Your task to perform on an android device: all mails in gmail Image 0: 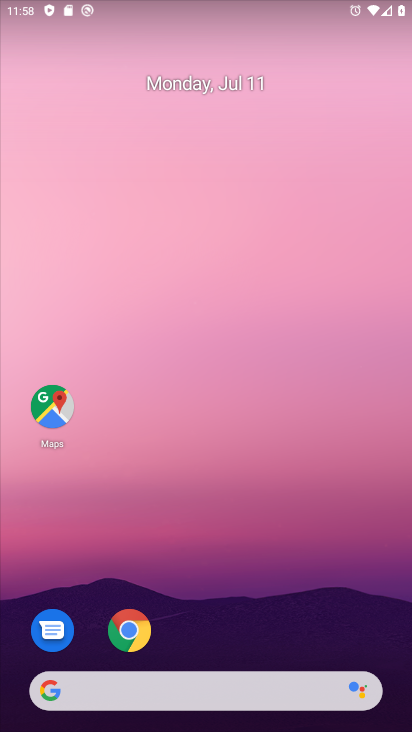
Step 0: drag from (209, 691) to (261, 191)
Your task to perform on an android device: all mails in gmail Image 1: 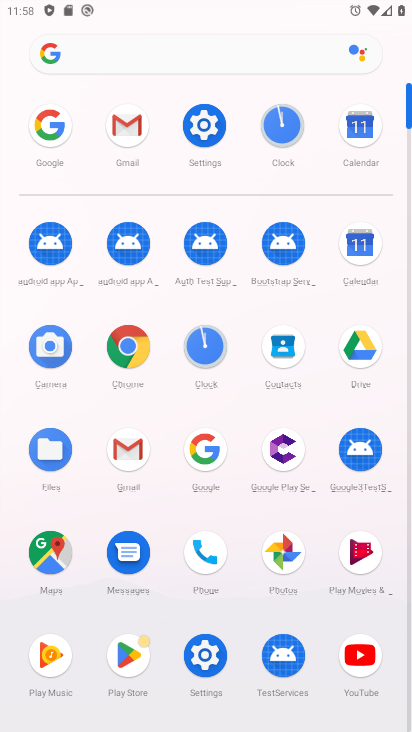
Step 1: click (126, 123)
Your task to perform on an android device: all mails in gmail Image 2: 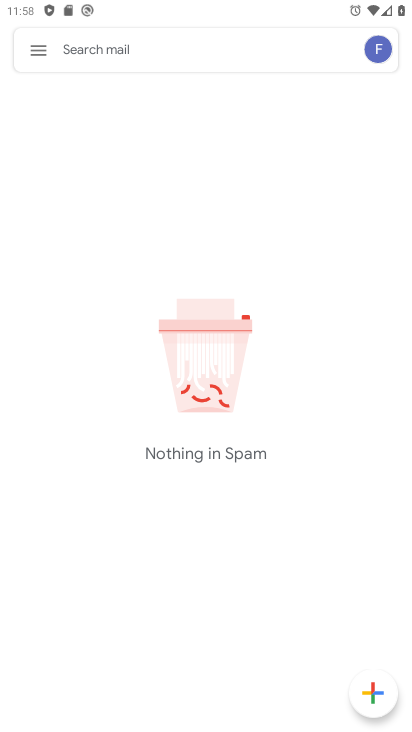
Step 2: click (38, 49)
Your task to perform on an android device: all mails in gmail Image 3: 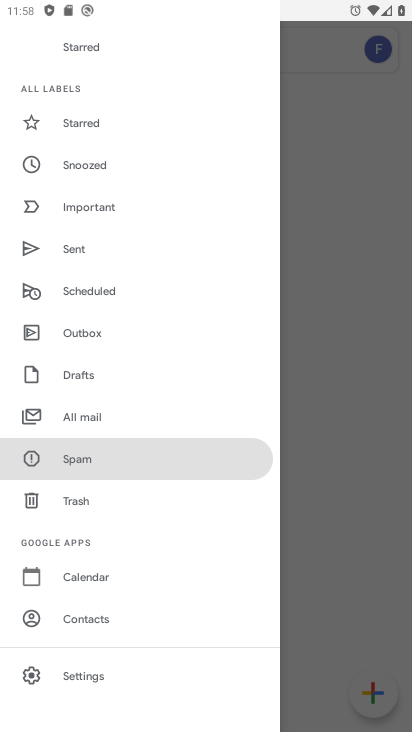
Step 3: click (106, 413)
Your task to perform on an android device: all mails in gmail Image 4: 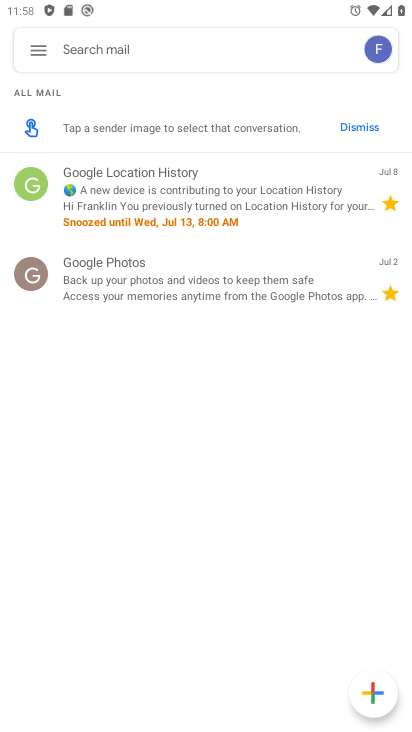
Step 4: task complete